Your task to perform on an android device: toggle translation in the chrome app Image 0: 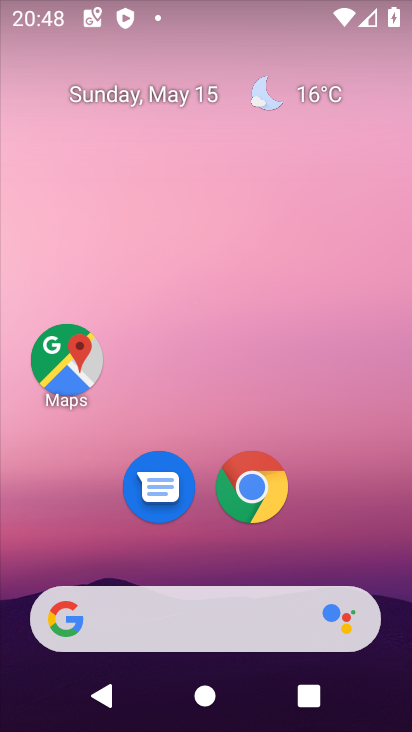
Step 0: click (252, 487)
Your task to perform on an android device: toggle translation in the chrome app Image 1: 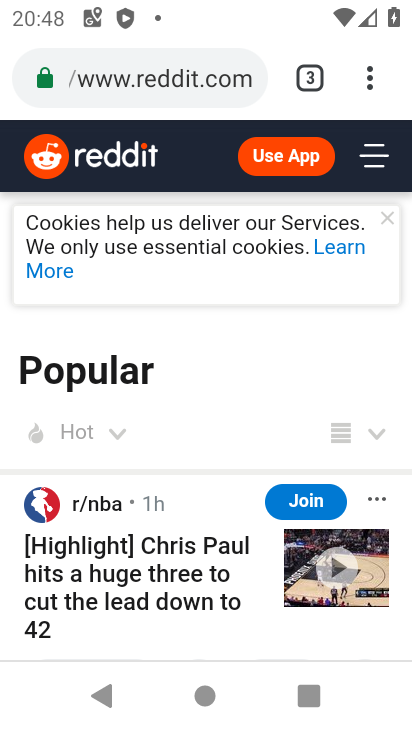
Step 1: click (367, 71)
Your task to perform on an android device: toggle translation in the chrome app Image 2: 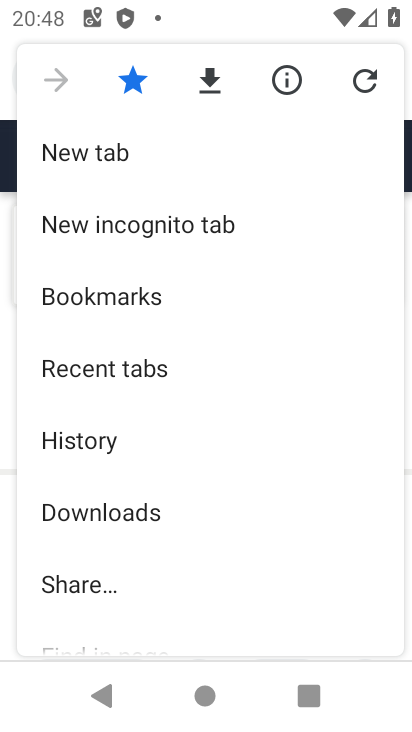
Step 2: drag from (276, 576) to (279, 366)
Your task to perform on an android device: toggle translation in the chrome app Image 3: 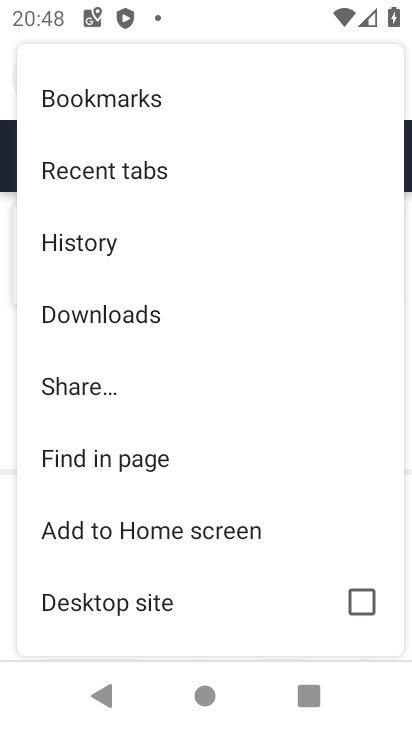
Step 3: drag from (263, 604) to (284, 388)
Your task to perform on an android device: toggle translation in the chrome app Image 4: 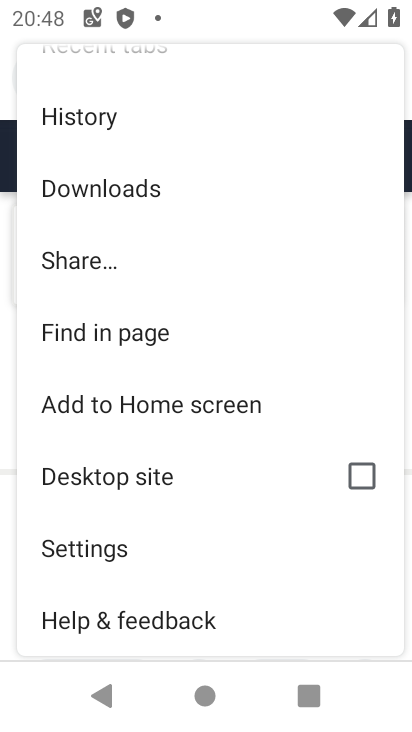
Step 4: click (85, 556)
Your task to perform on an android device: toggle translation in the chrome app Image 5: 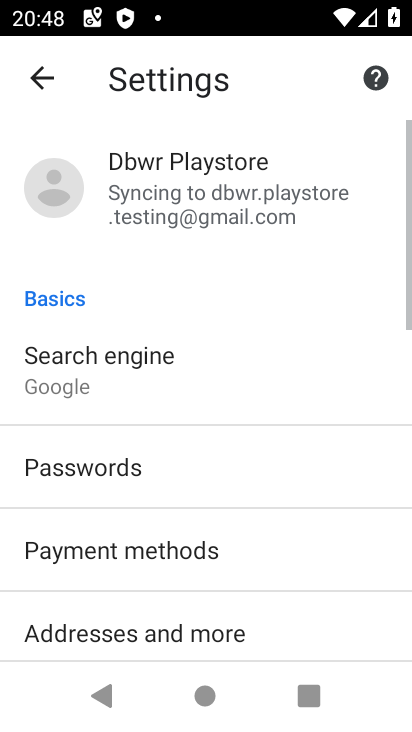
Step 5: drag from (309, 530) to (321, 280)
Your task to perform on an android device: toggle translation in the chrome app Image 6: 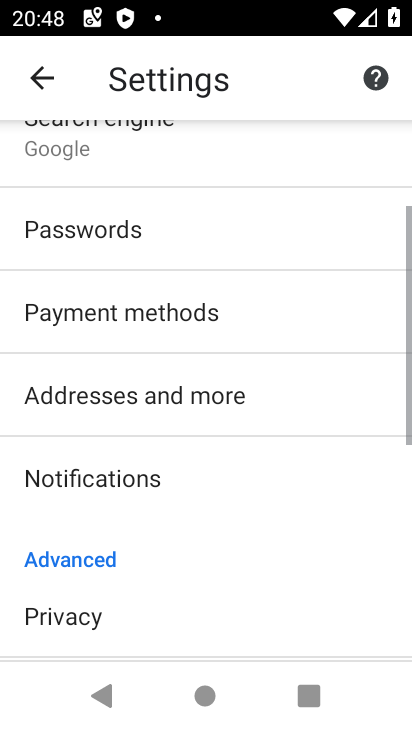
Step 6: drag from (294, 608) to (300, 349)
Your task to perform on an android device: toggle translation in the chrome app Image 7: 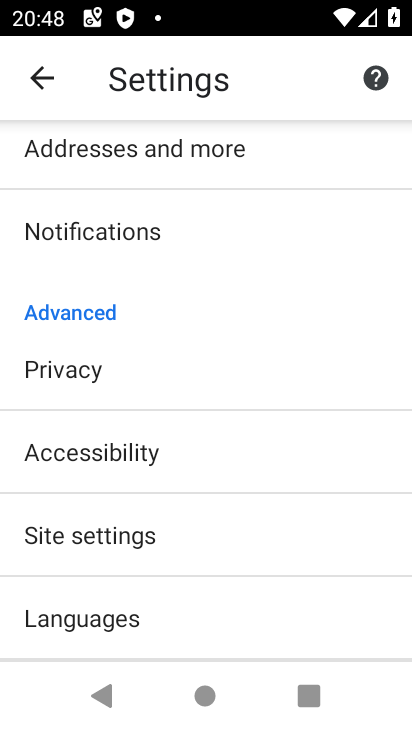
Step 7: click (70, 614)
Your task to perform on an android device: toggle translation in the chrome app Image 8: 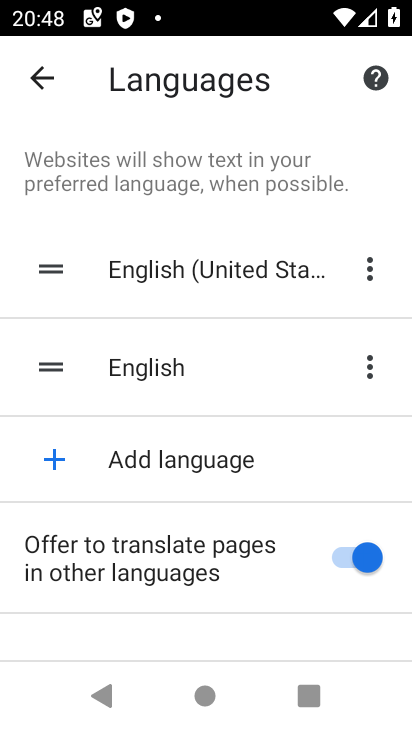
Step 8: click (345, 557)
Your task to perform on an android device: toggle translation in the chrome app Image 9: 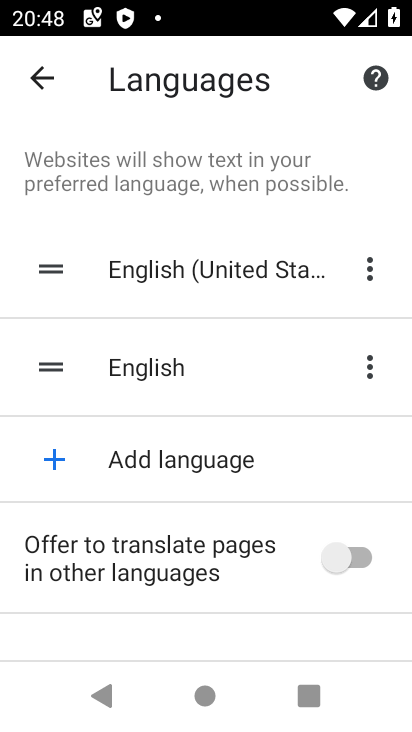
Step 9: task complete